Your task to perform on an android device: turn off notifications settings in the gmail app Image 0: 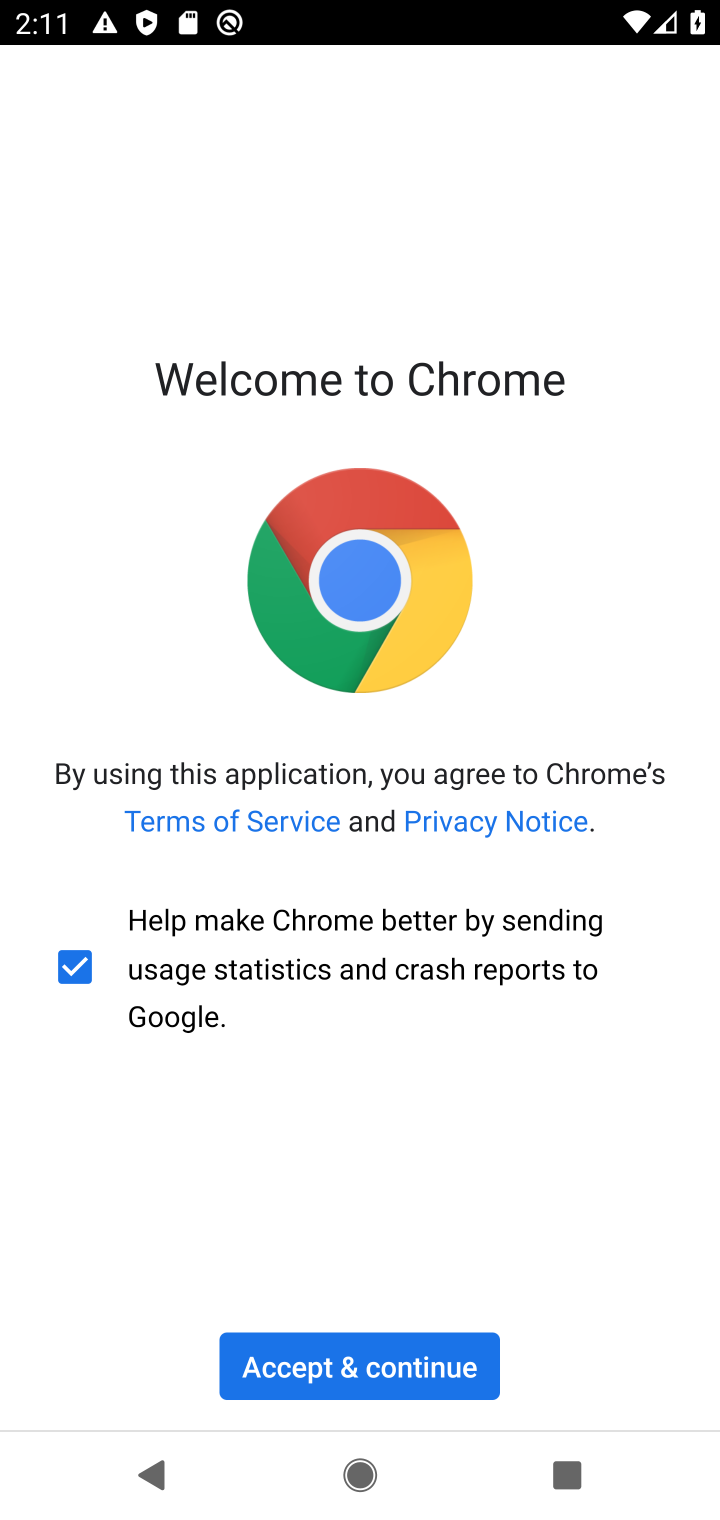
Step 0: press back button
Your task to perform on an android device: turn off notifications settings in the gmail app Image 1: 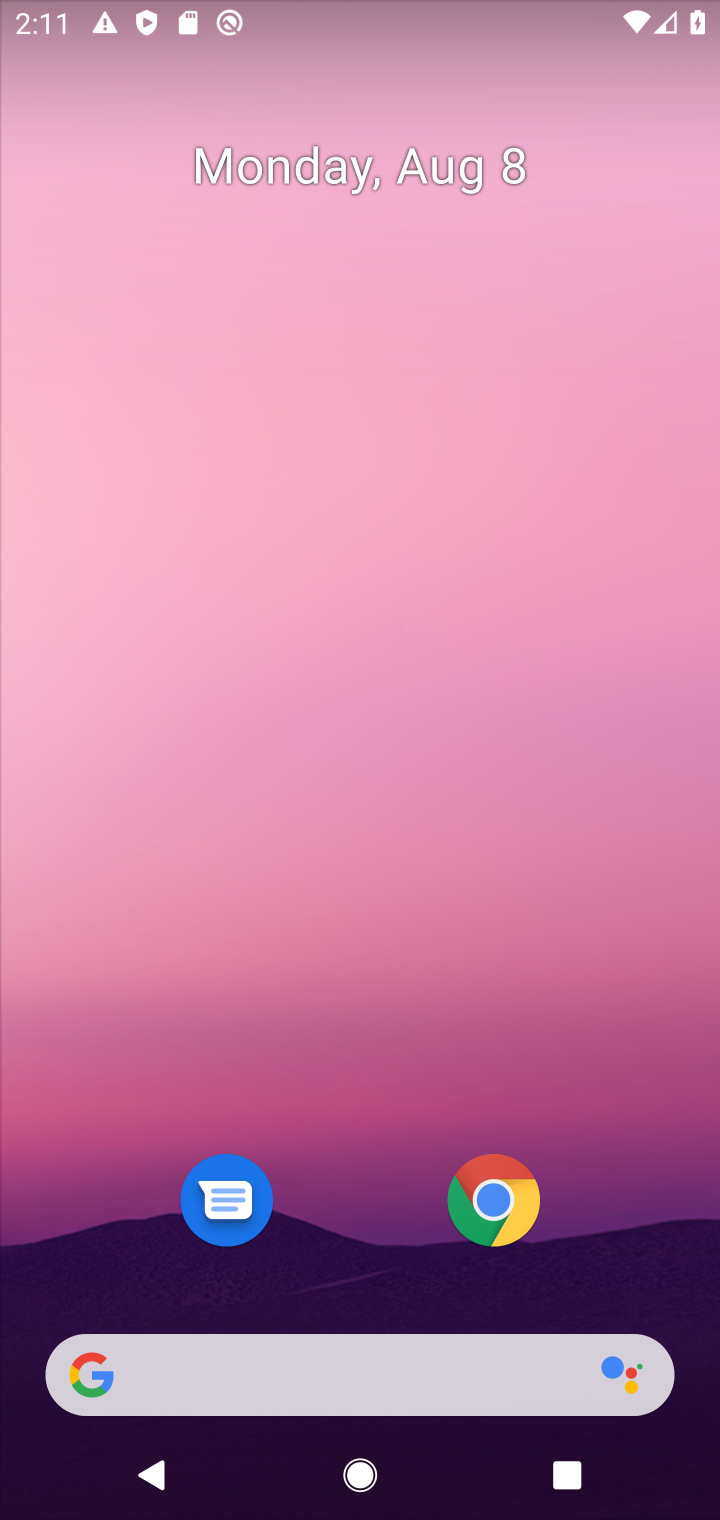
Step 1: drag from (316, 1238) to (441, 217)
Your task to perform on an android device: turn off notifications settings in the gmail app Image 2: 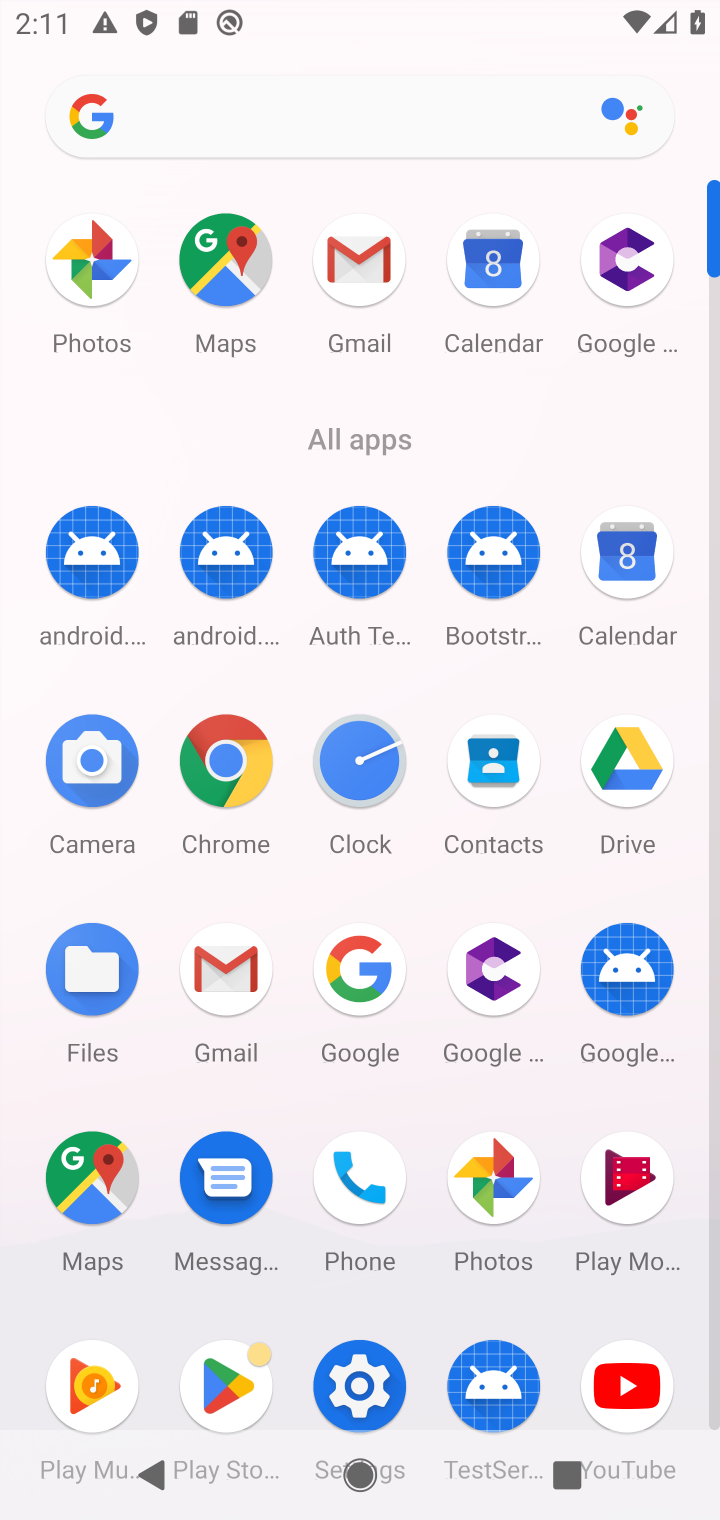
Step 2: click (361, 245)
Your task to perform on an android device: turn off notifications settings in the gmail app Image 3: 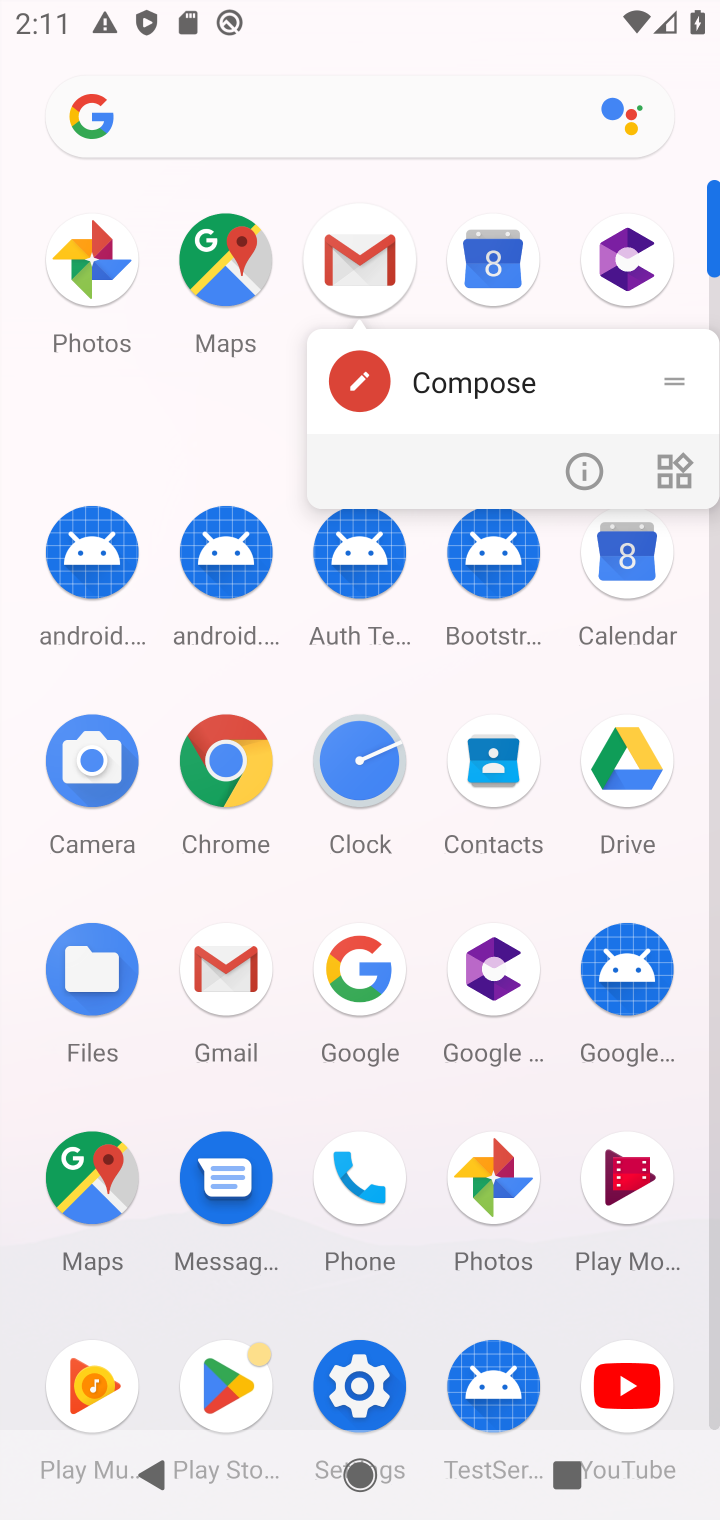
Step 3: click (600, 467)
Your task to perform on an android device: turn off notifications settings in the gmail app Image 4: 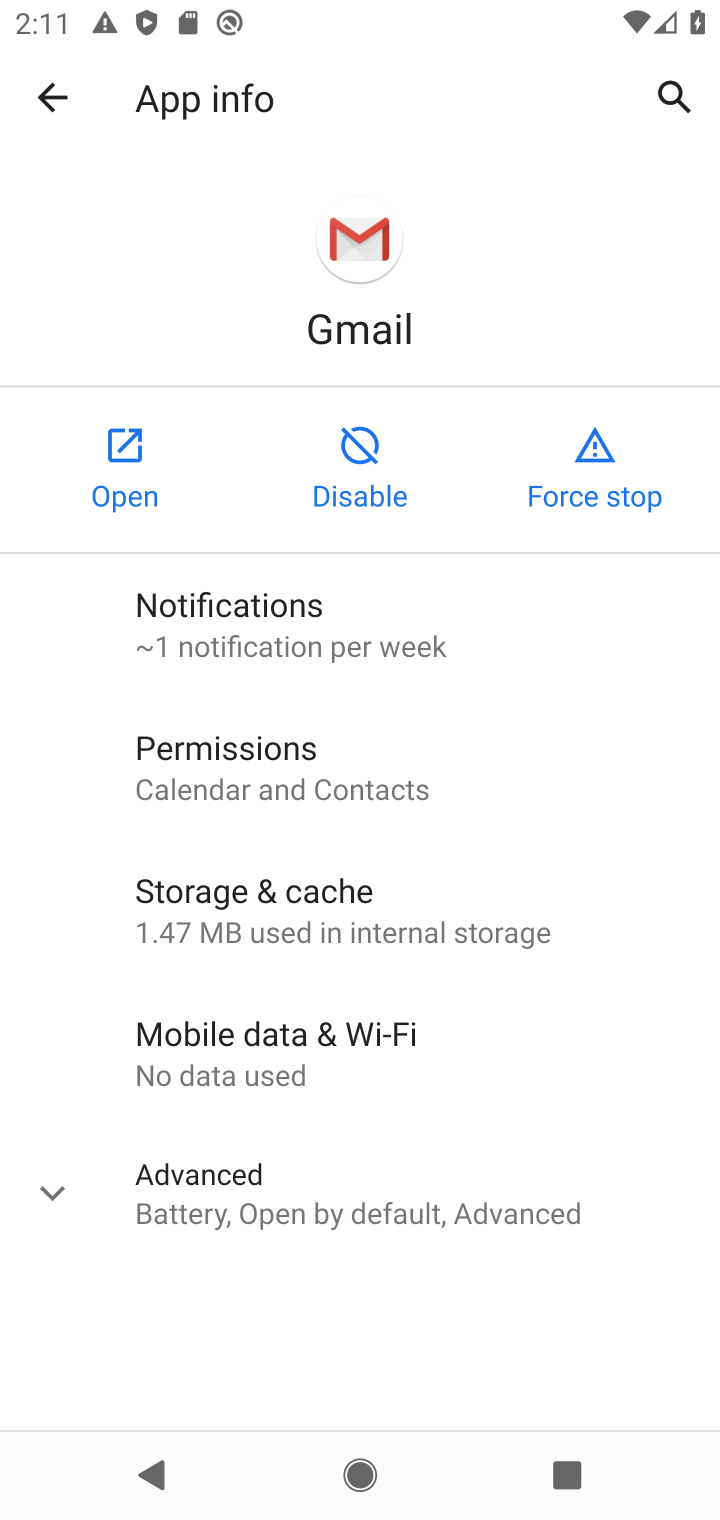
Step 4: click (275, 625)
Your task to perform on an android device: turn off notifications settings in the gmail app Image 5: 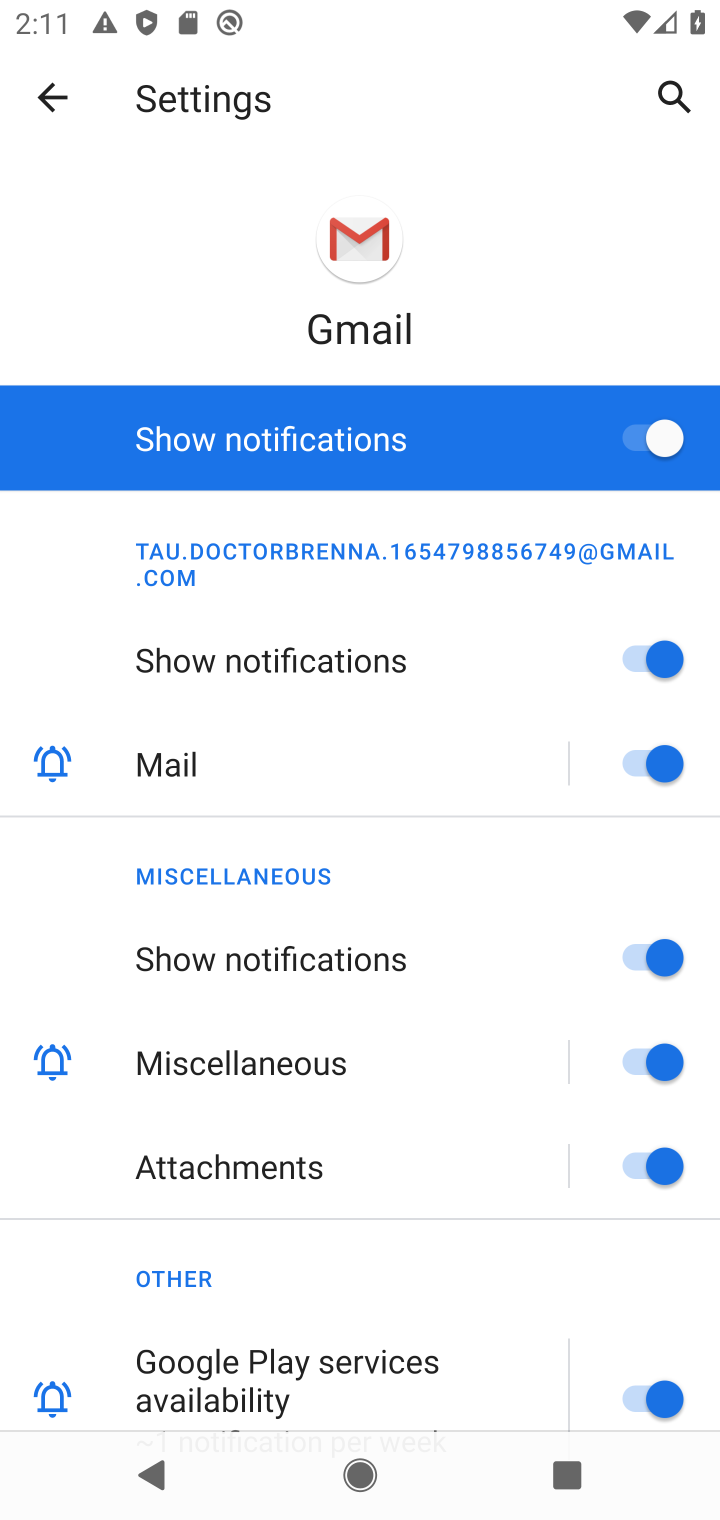
Step 5: click (651, 433)
Your task to perform on an android device: turn off notifications settings in the gmail app Image 6: 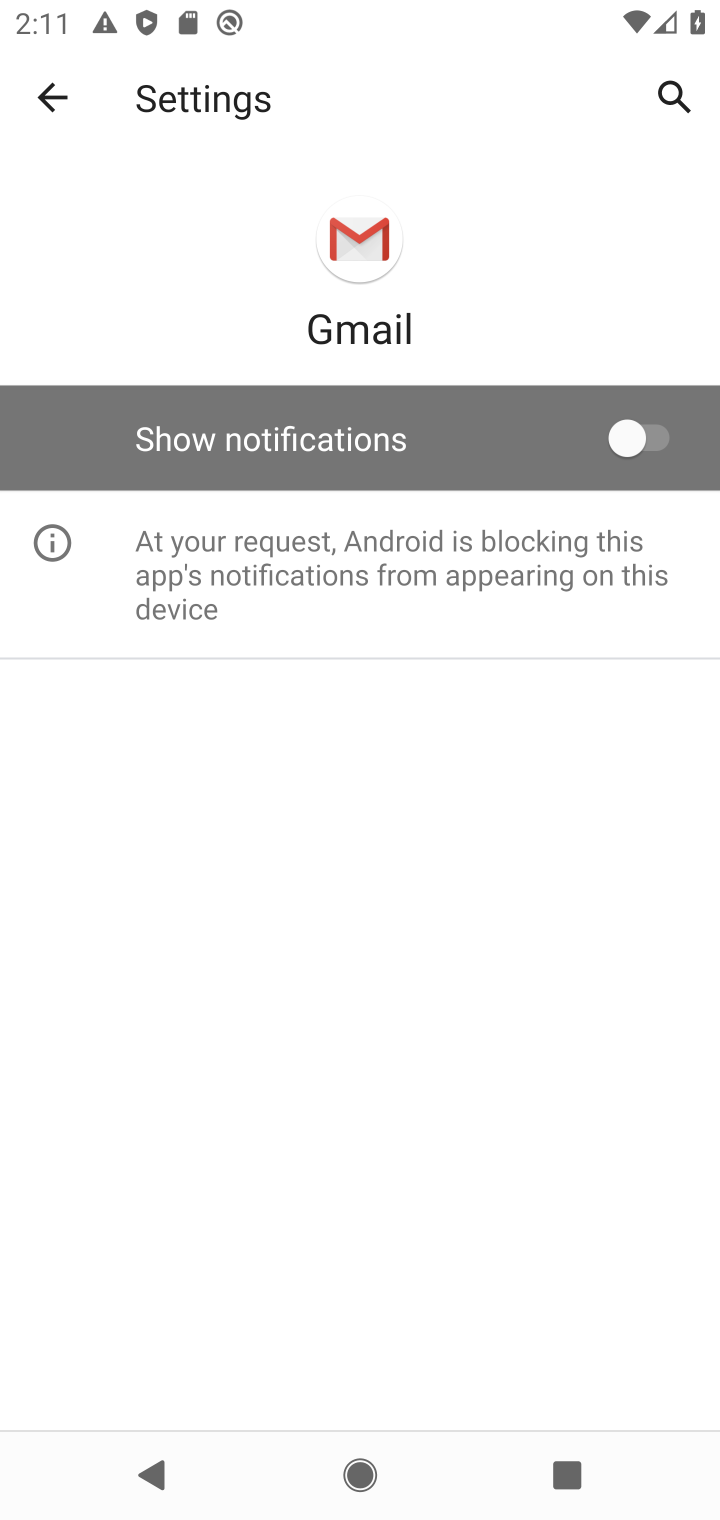
Step 6: task complete